Your task to perform on an android device: turn on airplane mode Image 0: 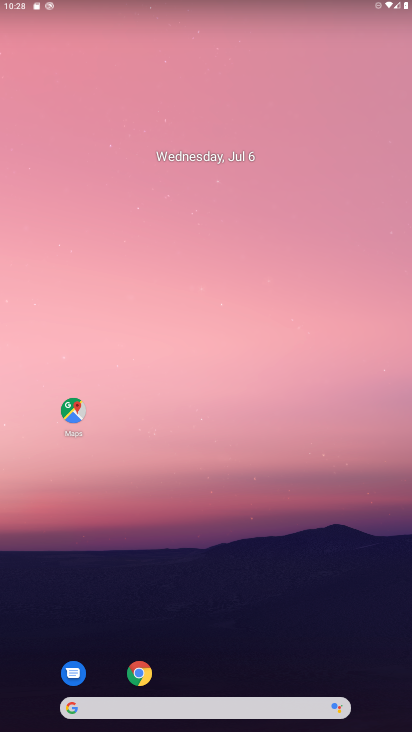
Step 0: drag from (266, 53) to (233, 595)
Your task to perform on an android device: turn on airplane mode Image 1: 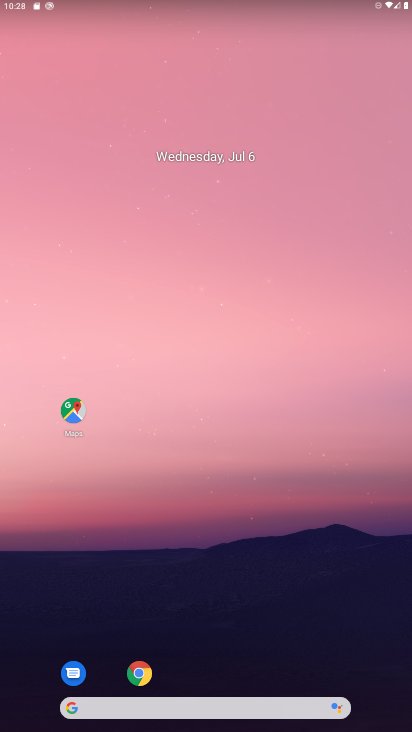
Step 1: drag from (124, 4) to (240, 549)
Your task to perform on an android device: turn on airplane mode Image 2: 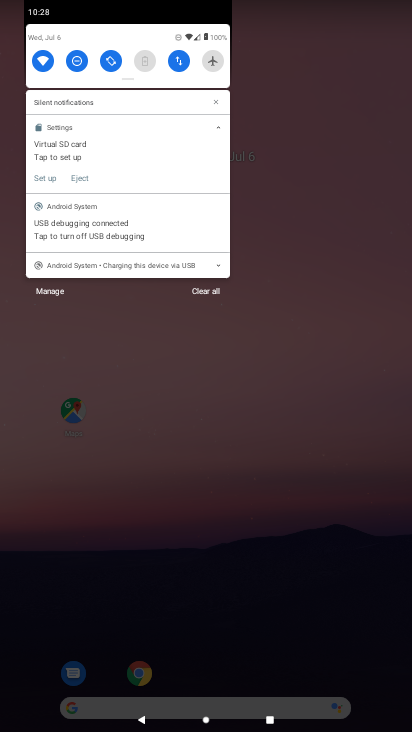
Step 2: click (214, 61)
Your task to perform on an android device: turn on airplane mode Image 3: 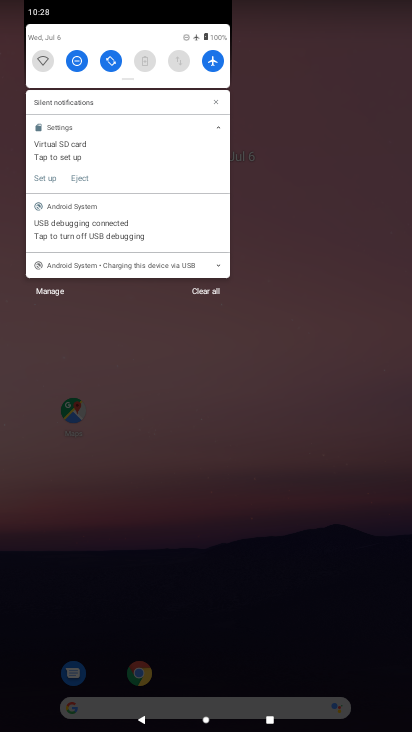
Step 3: task complete